Your task to perform on an android device: change notifications settings Image 0: 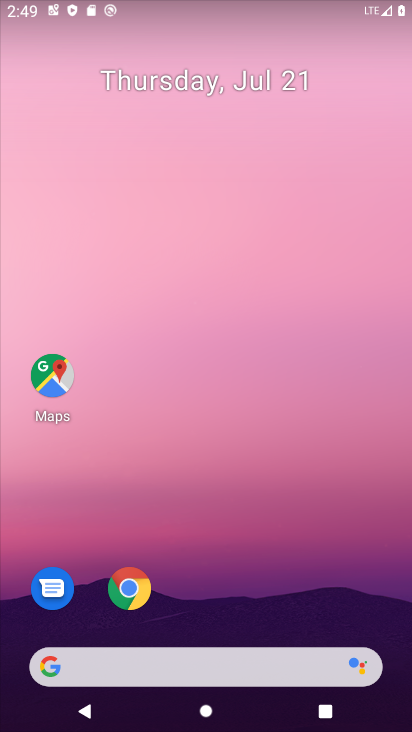
Step 0: drag from (226, 442) to (364, 201)
Your task to perform on an android device: change notifications settings Image 1: 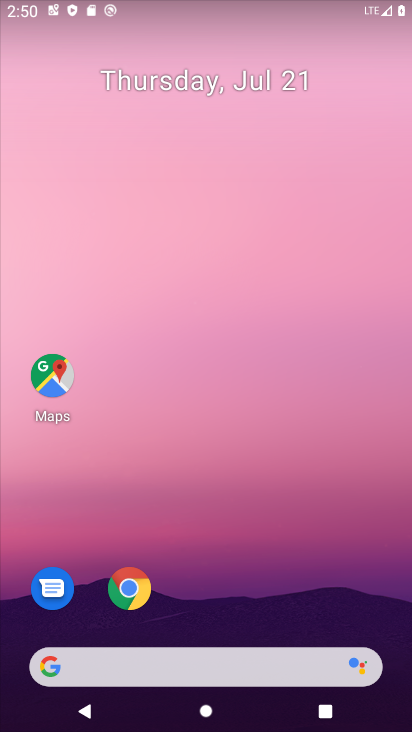
Step 1: drag from (251, 438) to (337, 243)
Your task to perform on an android device: change notifications settings Image 2: 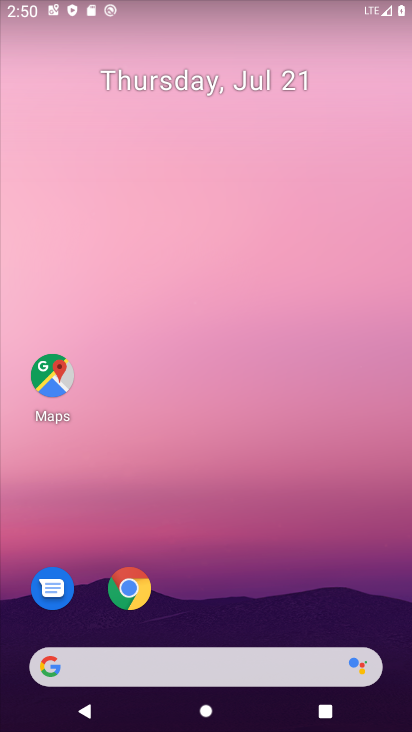
Step 2: drag from (189, 599) to (237, 271)
Your task to perform on an android device: change notifications settings Image 3: 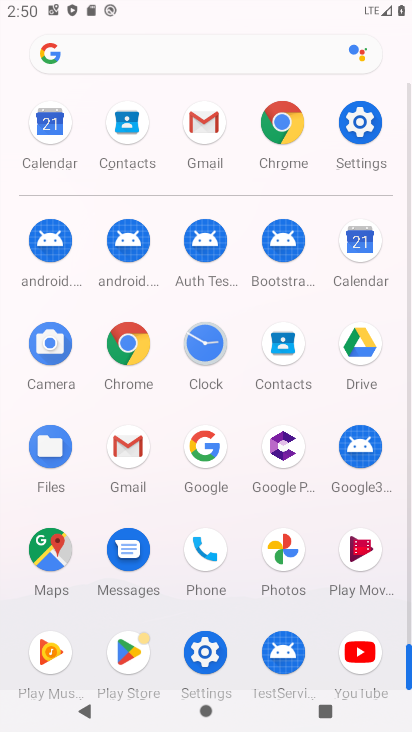
Step 3: click (207, 652)
Your task to perform on an android device: change notifications settings Image 4: 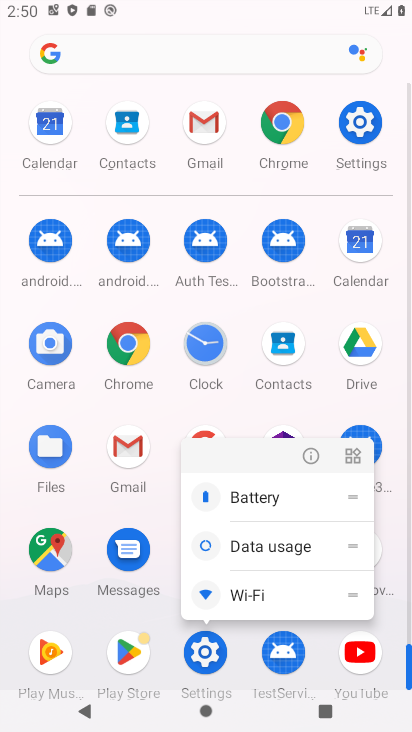
Step 4: click (315, 447)
Your task to perform on an android device: change notifications settings Image 5: 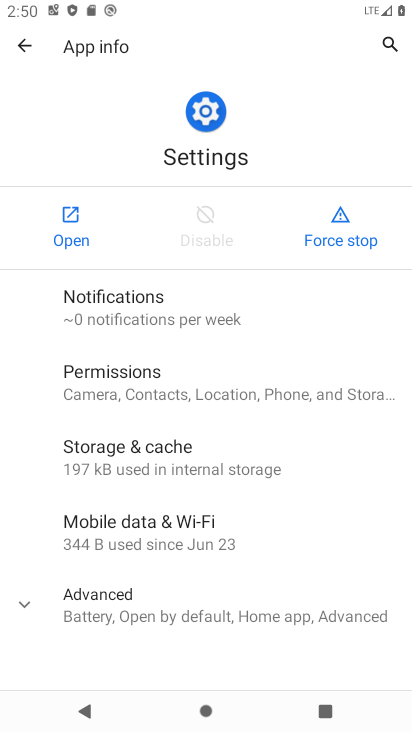
Step 5: click (74, 240)
Your task to perform on an android device: change notifications settings Image 6: 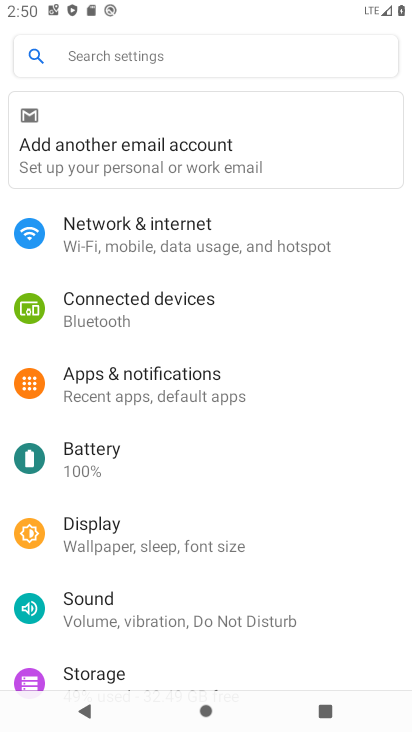
Step 6: click (166, 381)
Your task to perform on an android device: change notifications settings Image 7: 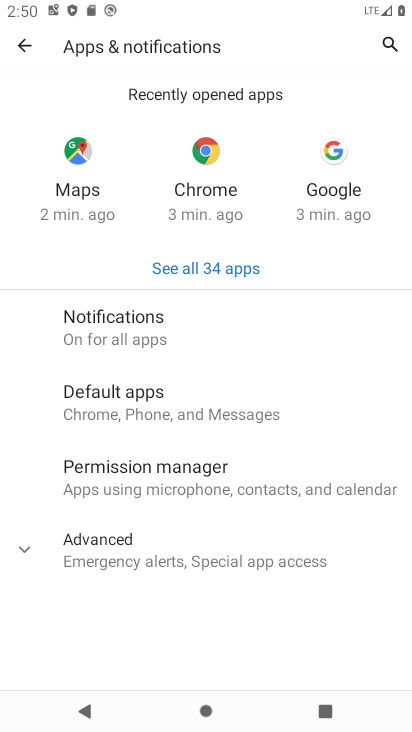
Step 7: click (167, 334)
Your task to perform on an android device: change notifications settings Image 8: 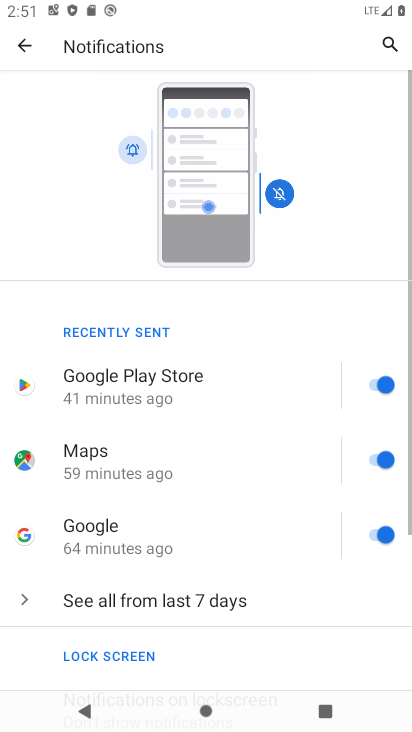
Step 8: drag from (221, 621) to (225, 250)
Your task to perform on an android device: change notifications settings Image 9: 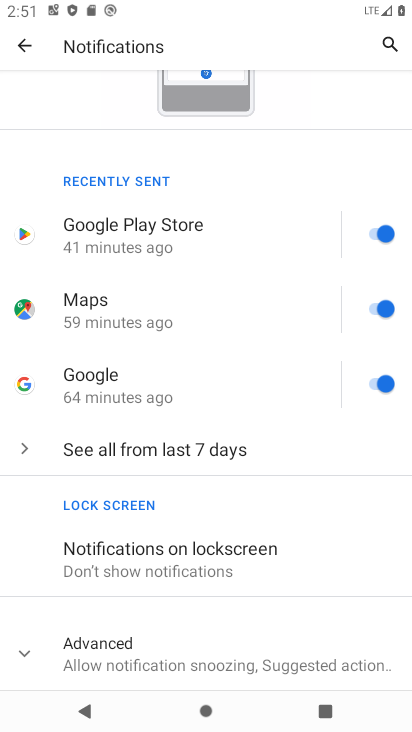
Step 9: click (196, 665)
Your task to perform on an android device: change notifications settings Image 10: 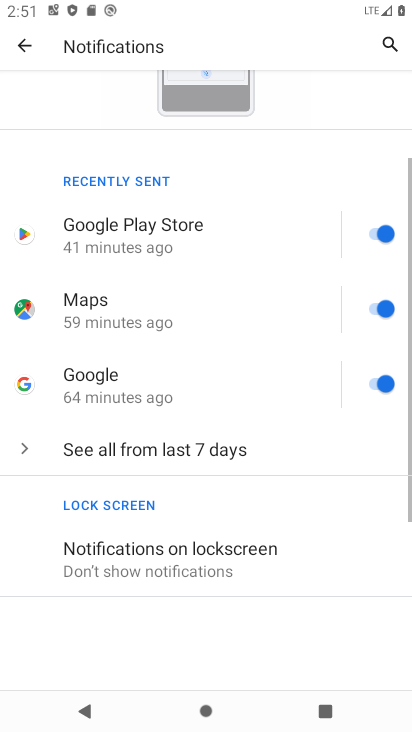
Step 10: task complete